Your task to perform on an android device: Open the calendar app, open the side menu, and click the "Day" option Image 0: 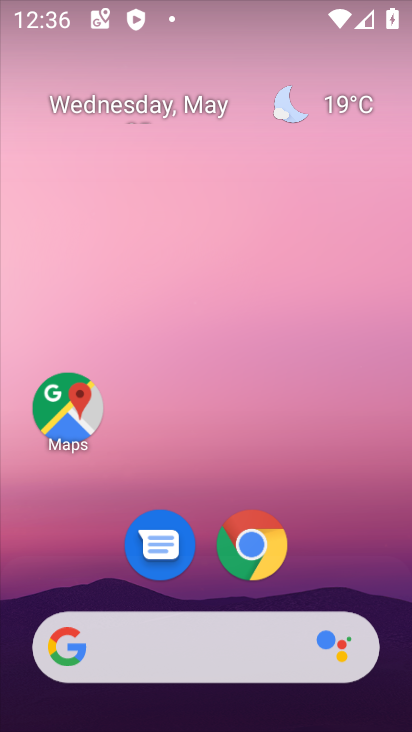
Step 0: click (158, 116)
Your task to perform on an android device: Open the calendar app, open the side menu, and click the "Day" option Image 1: 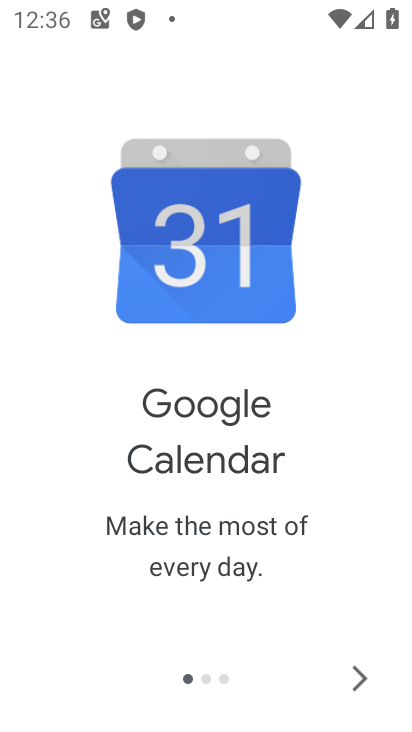
Step 1: click (360, 694)
Your task to perform on an android device: Open the calendar app, open the side menu, and click the "Day" option Image 2: 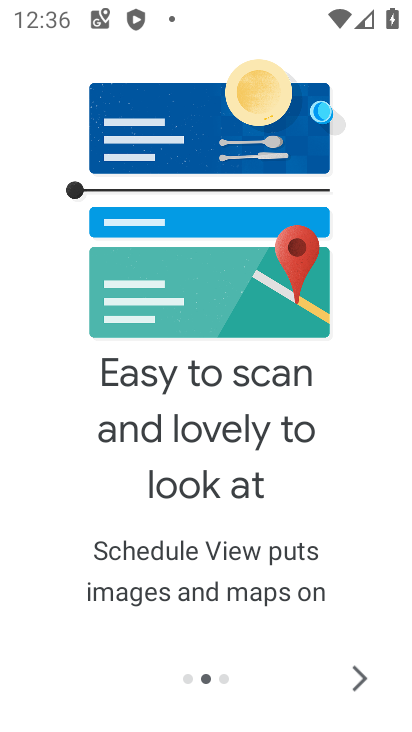
Step 2: click (360, 694)
Your task to perform on an android device: Open the calendar app, open the side menu, and click the "Day" option Image 3: 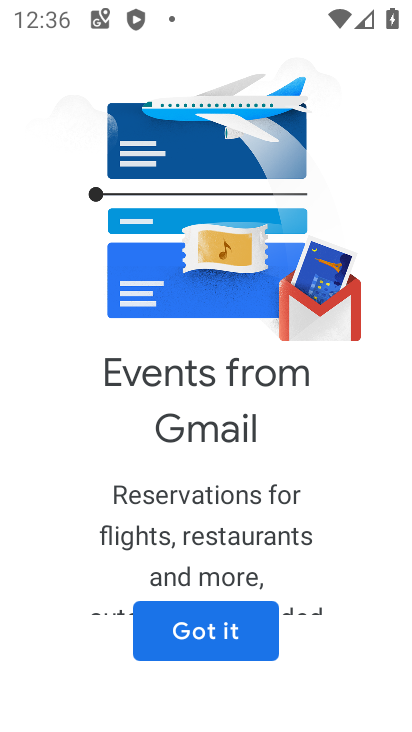
Step 3: click (179, 632)
Your task to perform on an android device: Open the calendar app, open the side menu, and click the "Day" option Image 4: 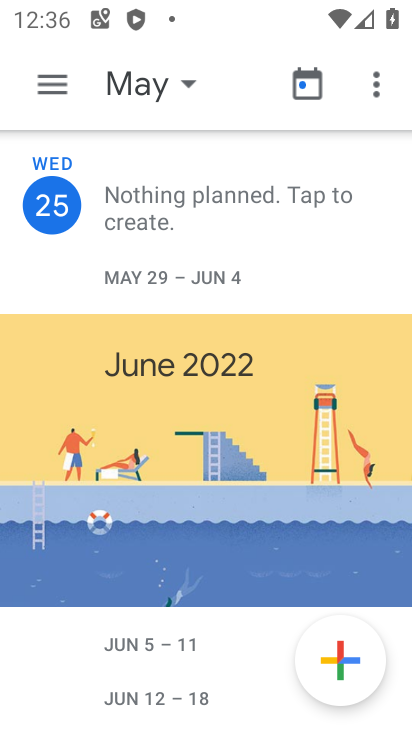
Step 4: click (30, 103)
Your task to perform on an android device: Open the calendar app, open the side menu, and click the "Day" option Image 5: 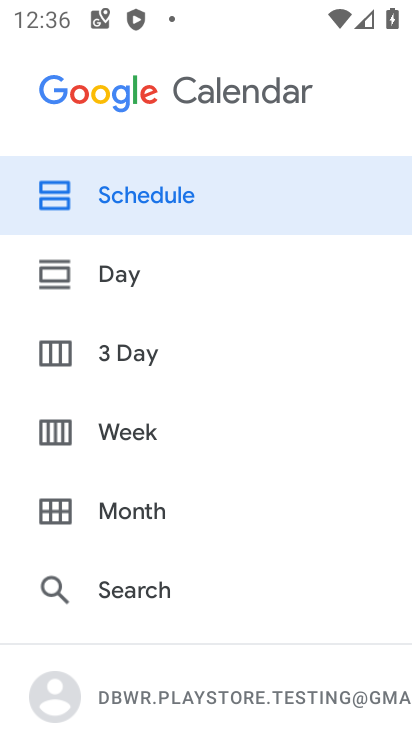
Step 5: click (72, 287)
Your task to perform on an android device: Open the calendar app, open the side menu, and click the "Day" option Image 6: 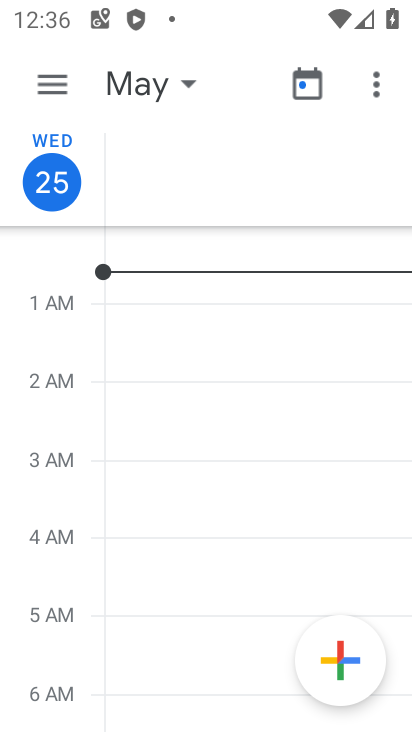
Step 6: task complete